Your task to perform on an android device: Show me popular games on the Play Store Image 0: 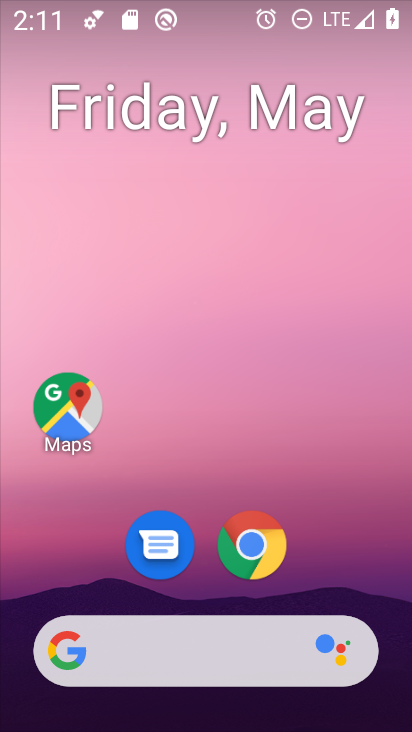
Step 0: drag from (337, 549) to (350, 160)
Your task to perform on an android device: Show me popular games on the Play Store Image 1: 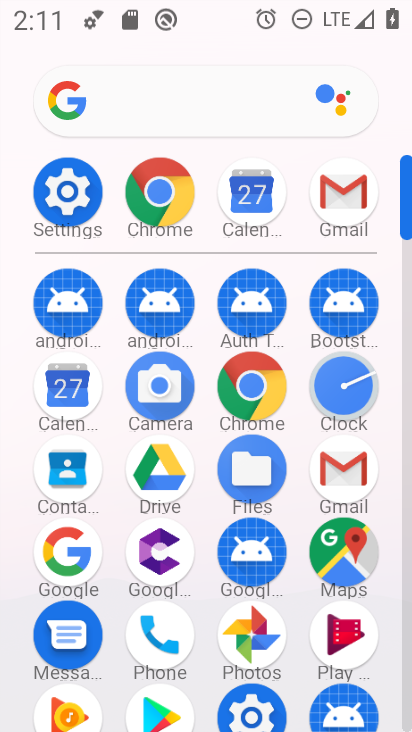
Step 1: drag from (196, 645) to (185, 314)
Your task to perform on an android device: Show me popular games on the Play Store Image 2: 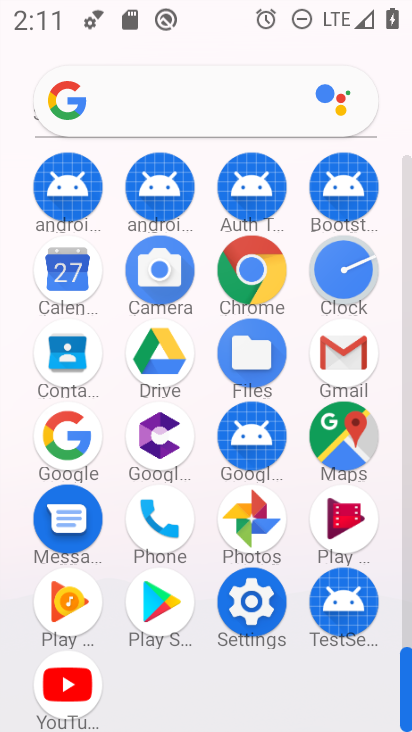
Step 2: click (152, 607)
Your task to perform on an android device: Show me popular games on the Play Store Image 3: 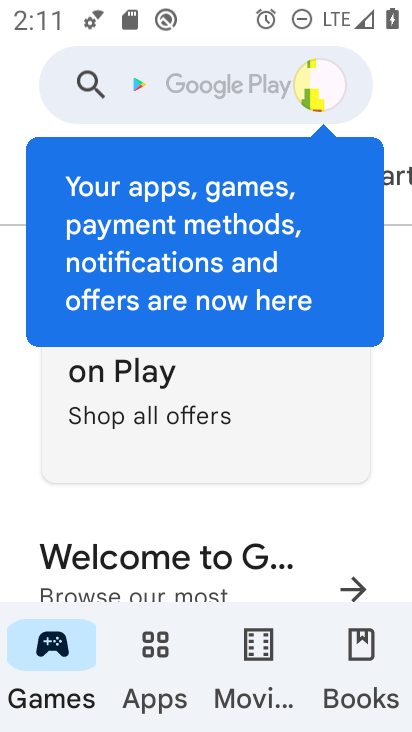
Step 3: click (165, 667)
Your task to perform on an android device: Show me popular games on the Play Store Image 4: 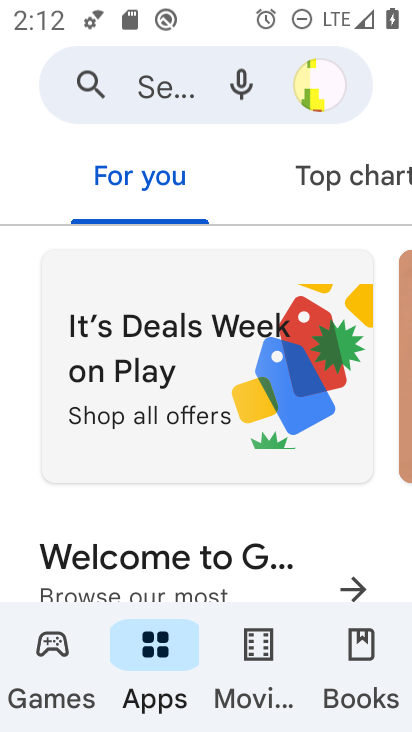
Step 4: click (46, 642)
Your task to perform on an android device: Show me popular games on the Play Store Image 5: 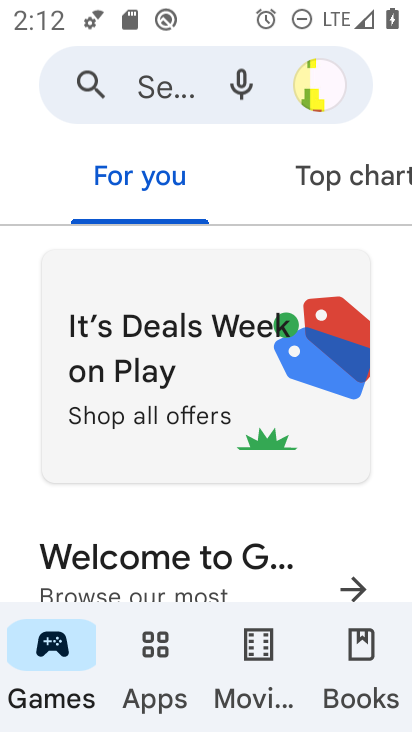
Step 5: task complete